Your task to perform on an android device: Turn on the flashlight Image 0: 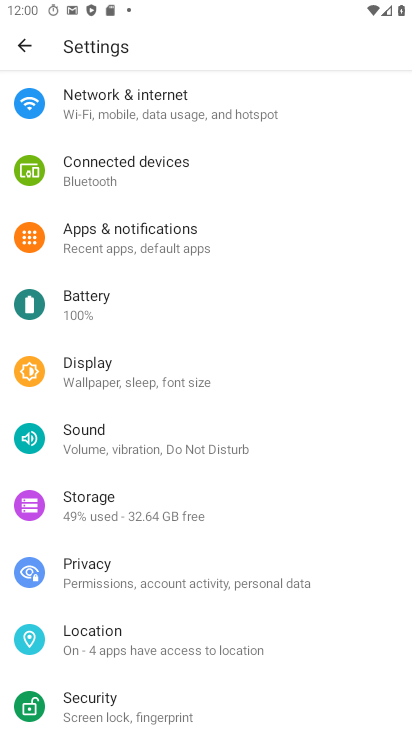
Step 0: click (96, 371)
Your task to perform on an android device: Turn on the flashlight Image 1: 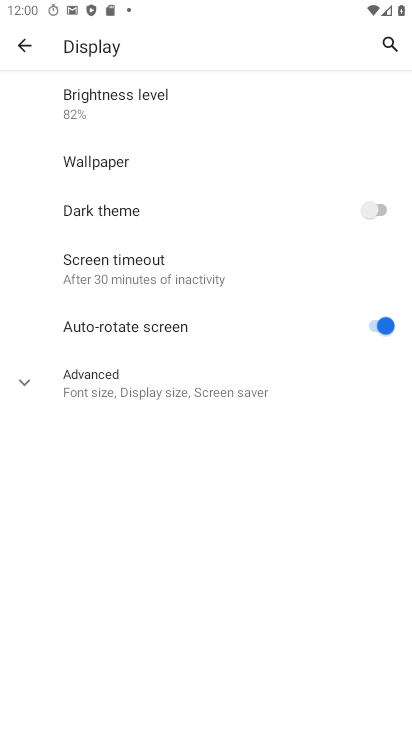
Step 1: task complete